Your task to perform on an android device: Open calendar and show me the fourth week of next month Image 0: 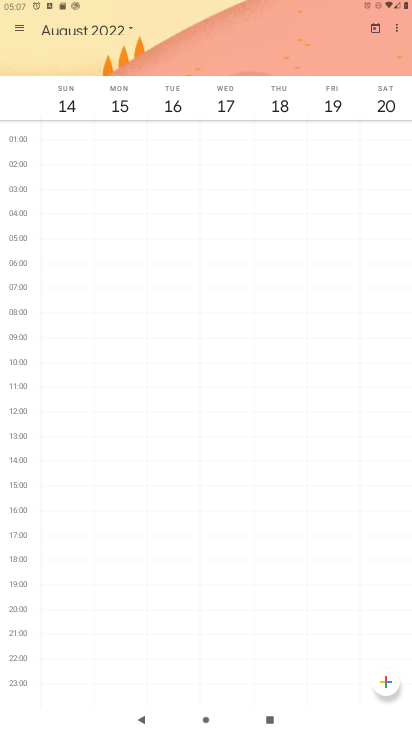
Step 0: click (126, 30)
Your task to perform on an android device: Open calendar and show me the fourth week of next month Image 1: 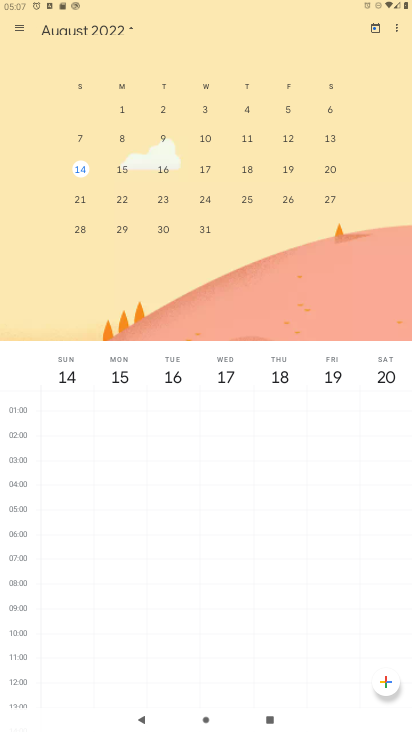
Step 1: click (79, 237)
Your task to perform on an android device: Open calendar and show me the fourth week of next month Image 2: 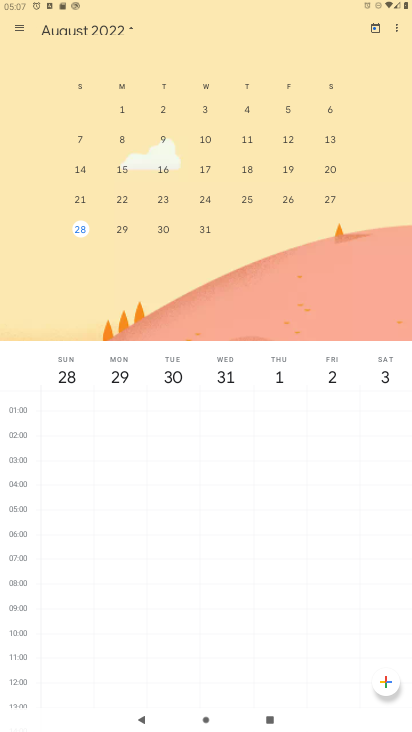
Step 2: task complete